Your task to perform on an android device: Search for vegetarian restaurants on Maps Image 0: 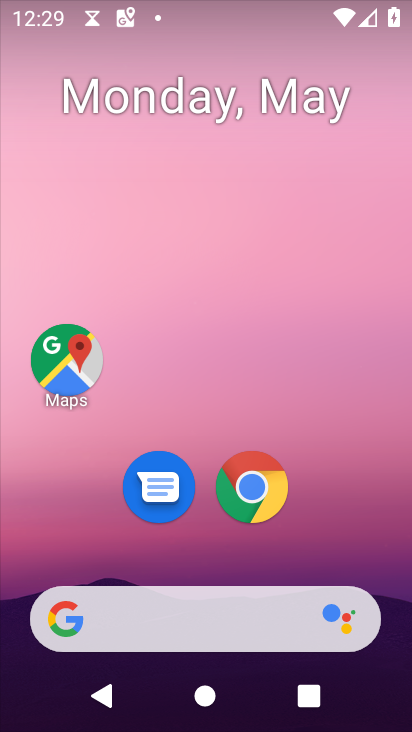
Step 0: click (64, 360)
Your task to perform on an android device: Search for vegetarian restaurants on Maps Image 1: 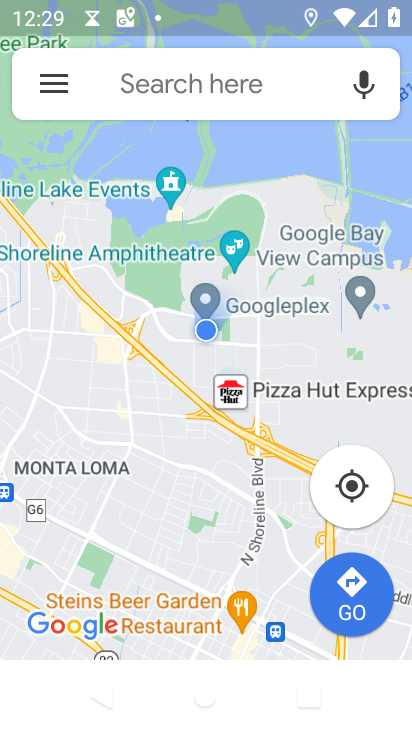
Step 1: click (189, 100)
Your task to perform on an android device: Search for vegetarian restaurants on Maps Image 2: 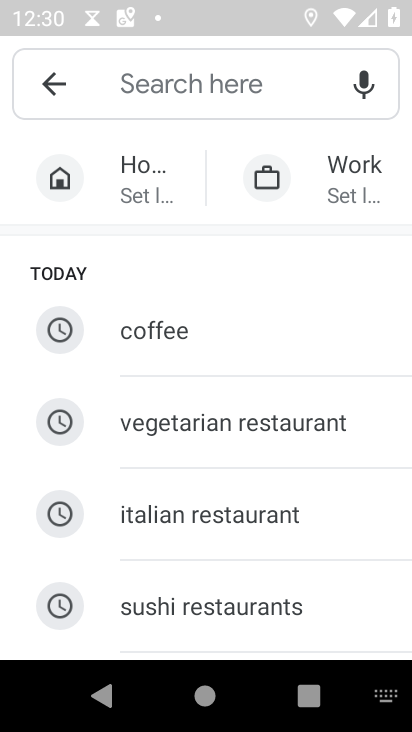
Step 2: type "vegetarian restaurants"
Your task to perform on an android device: Search for vegetarian restaurants on Maps Image 3: 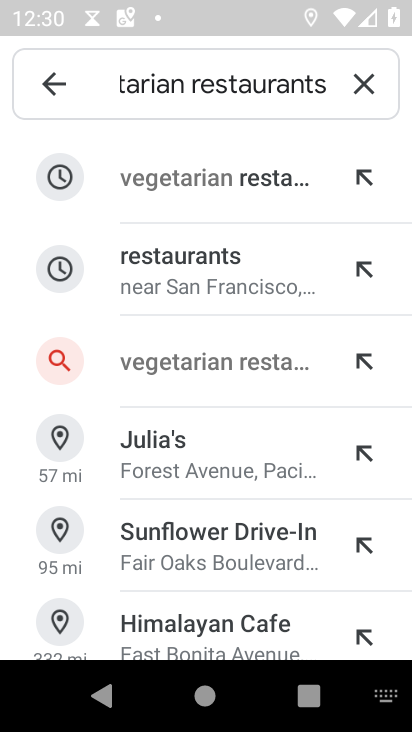
Step 3: click (159, 191)
Your task to perform on an android device: Search for vegetarian restaurants on Maps Image 4: 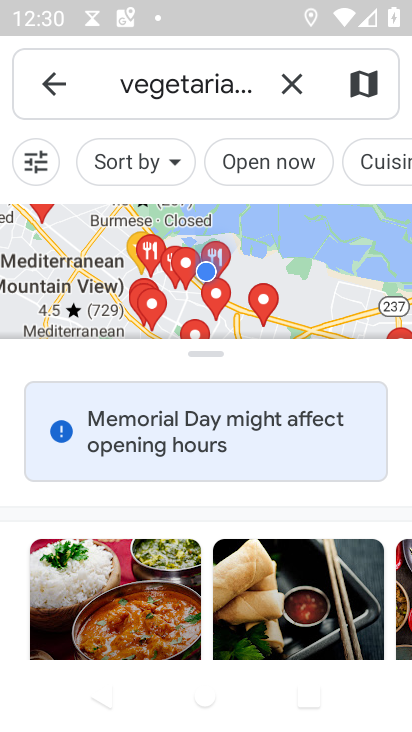
Step 4: task complete